Your task to perform on an android device: turn off javascript in the chrome app Image 0: 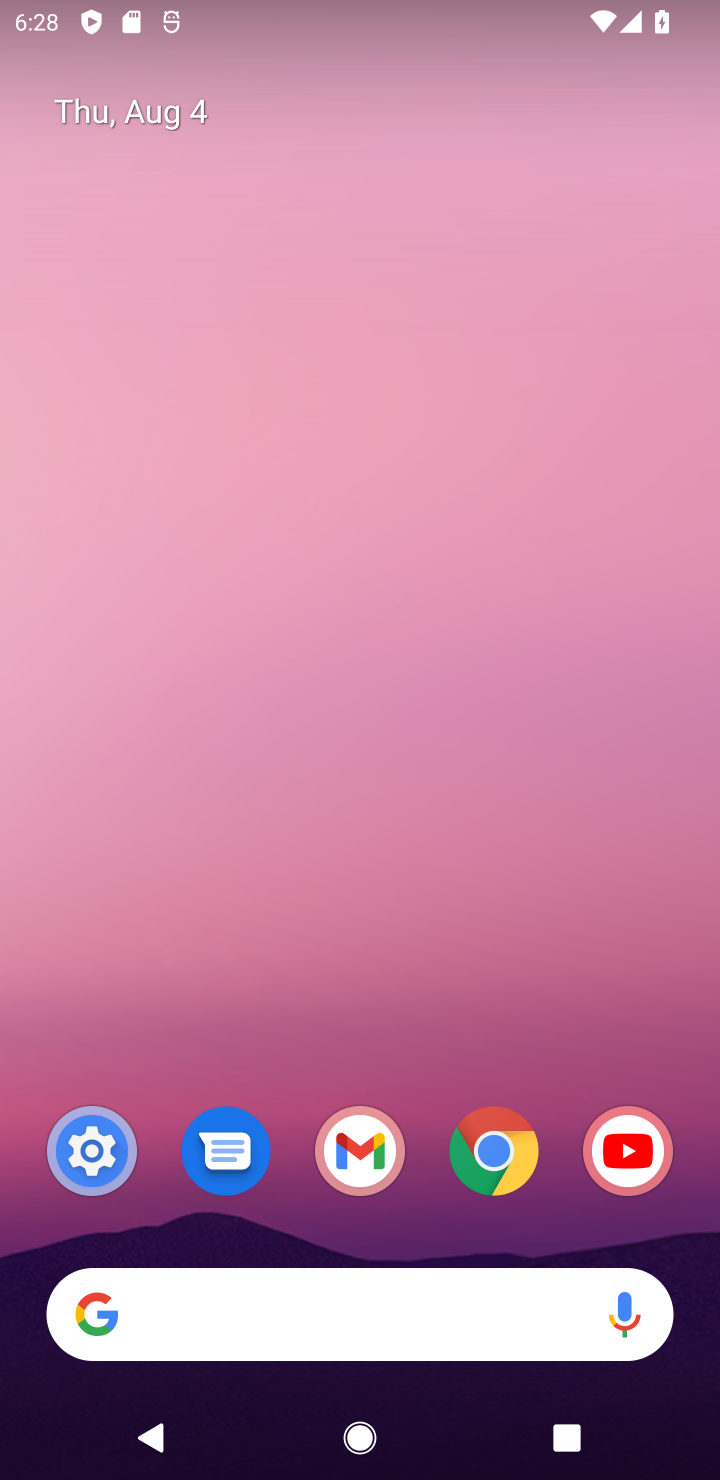
Step 0: click (467, 1163)
Your task to perform on an android device: turn off javascript in the chrome app Image 1: 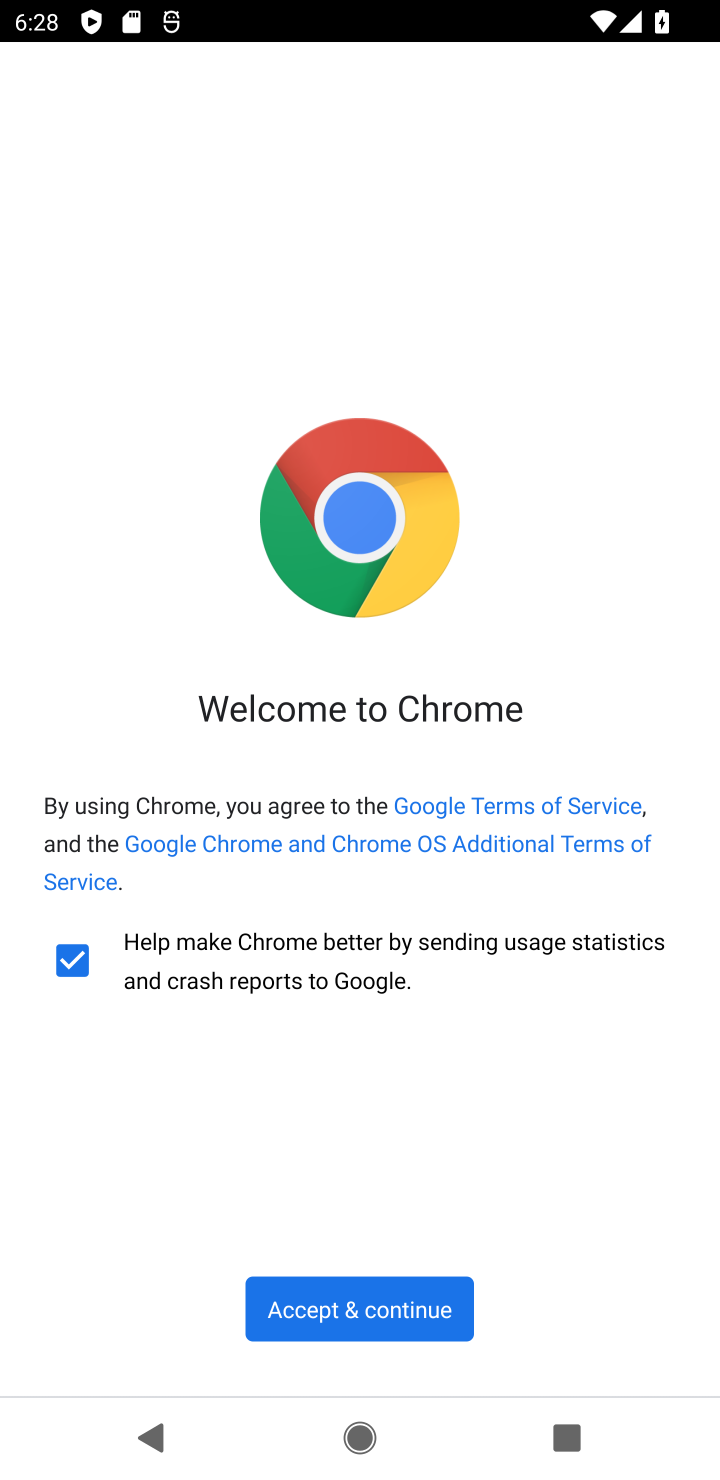
Step 1: click (431, 1293)
Your task to perform on an android device: turn off javascript in the chrome app Image 2: 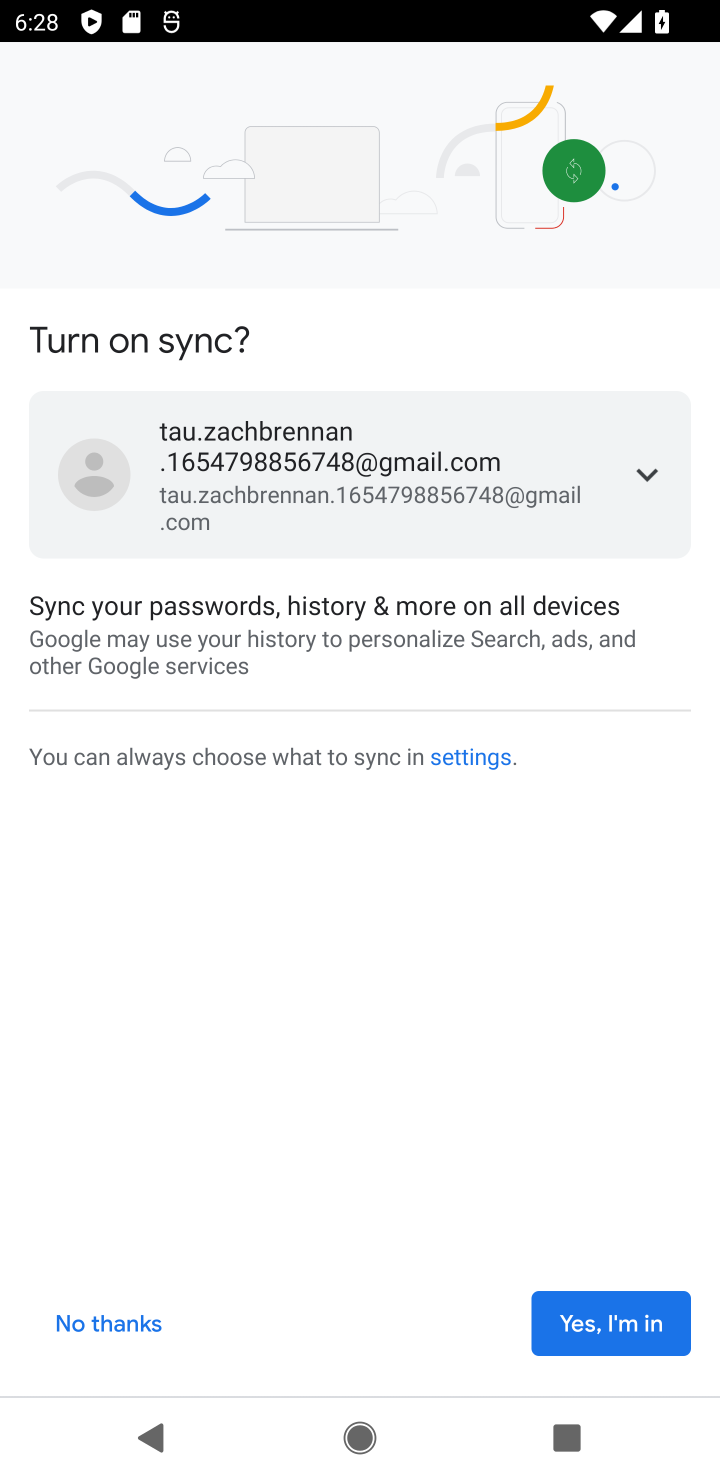
Step 2: click (601, 1328)
Your task to perform on an android device: turn off javascript in the chrome app Image 3: 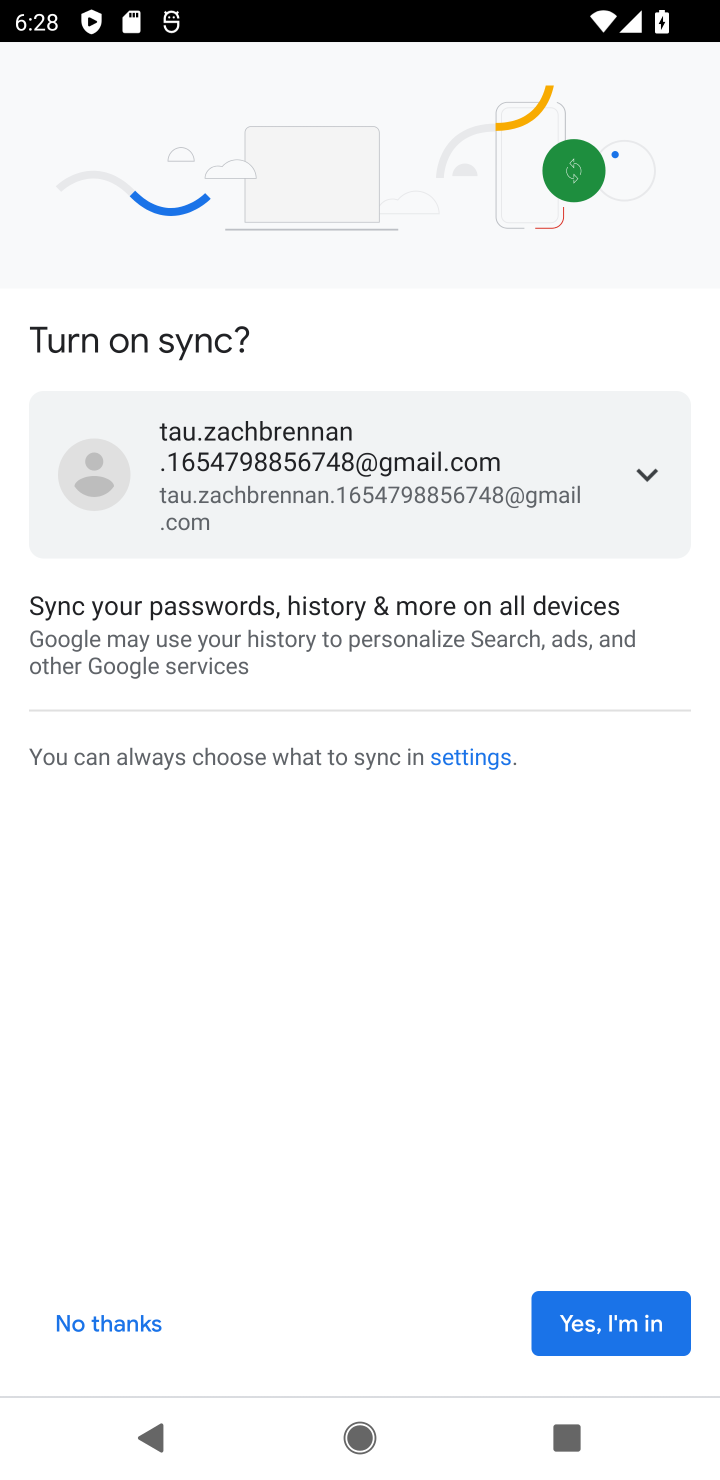
Step 3: click (587, 1316)
Your task to perform on an android device: turn off javascript in the chrome app Image 4: 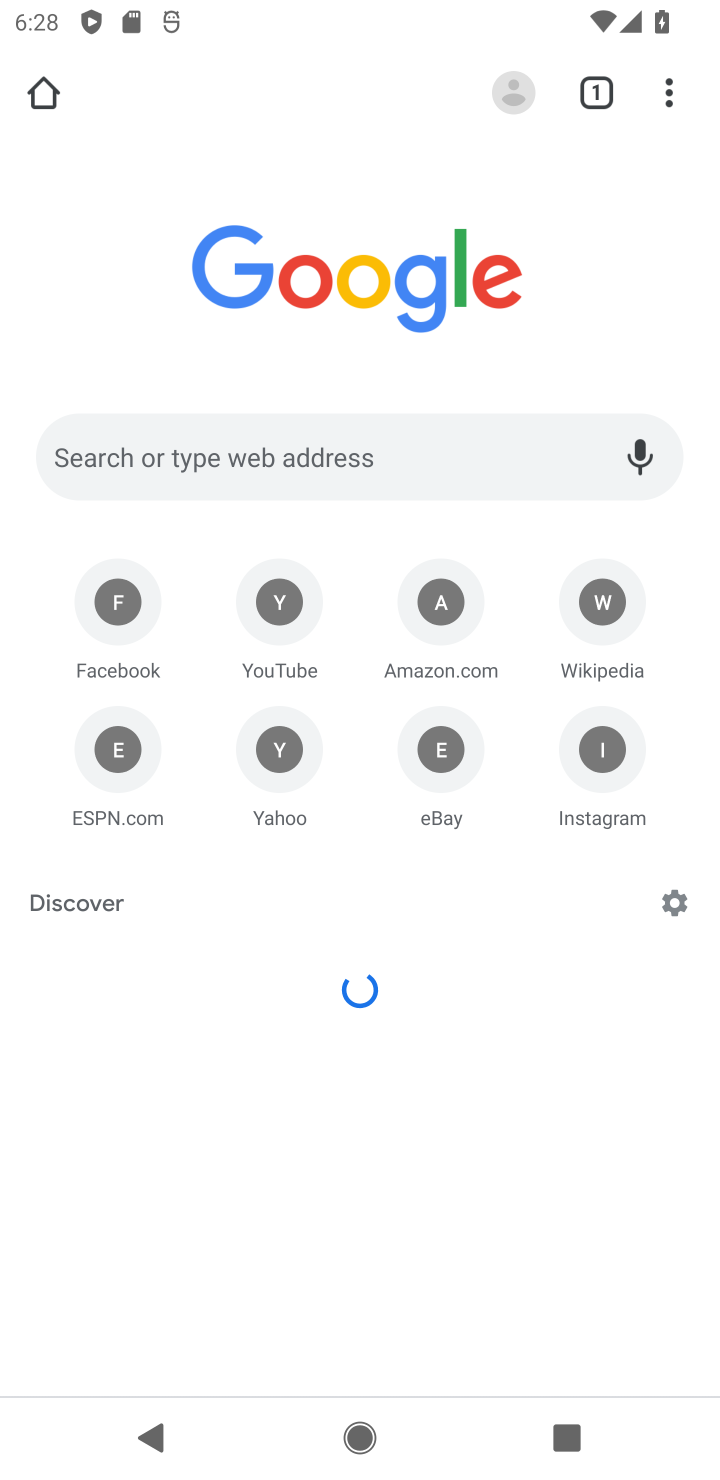
Step 4: click (667, 91)
Your task to perform on an android device: turn off javascript in the chrome app Image 5: 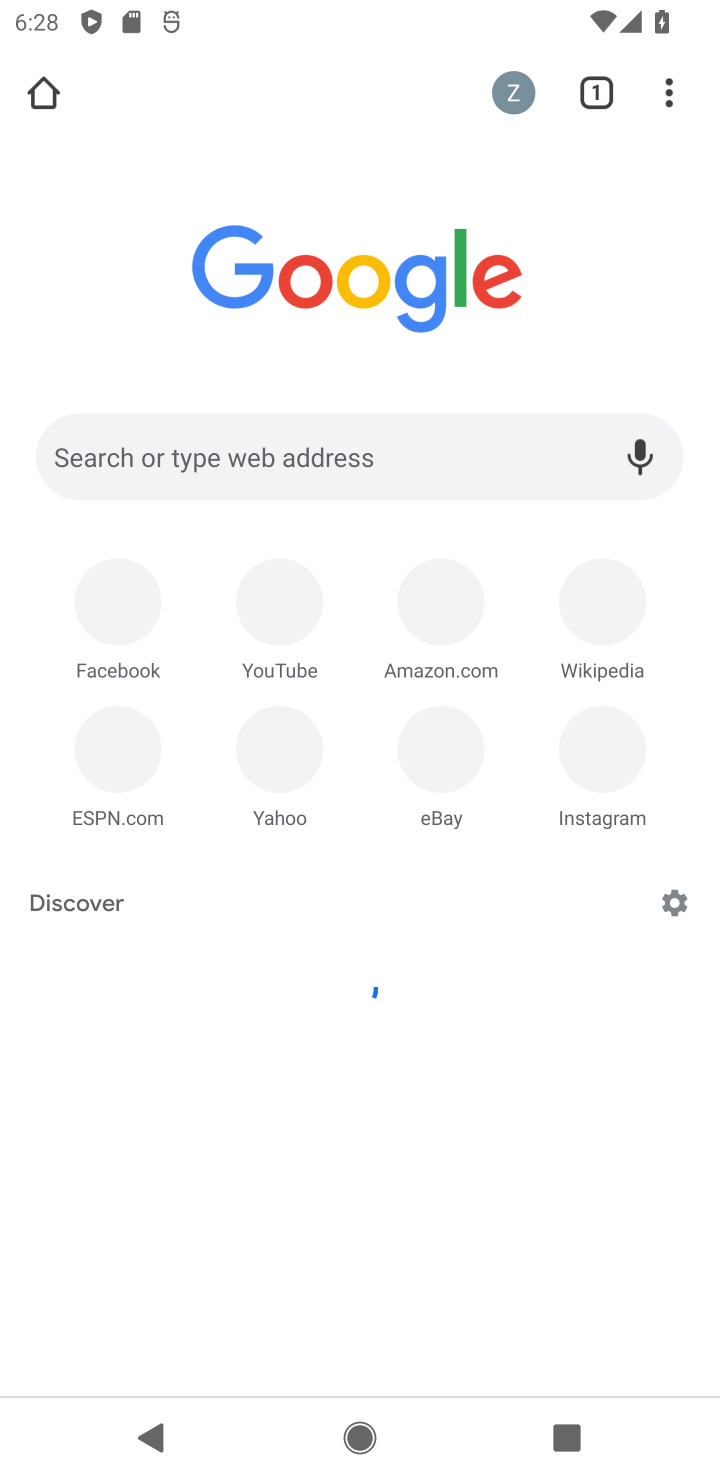
Step 5: click (674, 82)
Your task to perform on an android device: turn off javascript in the chrome app Image 6: 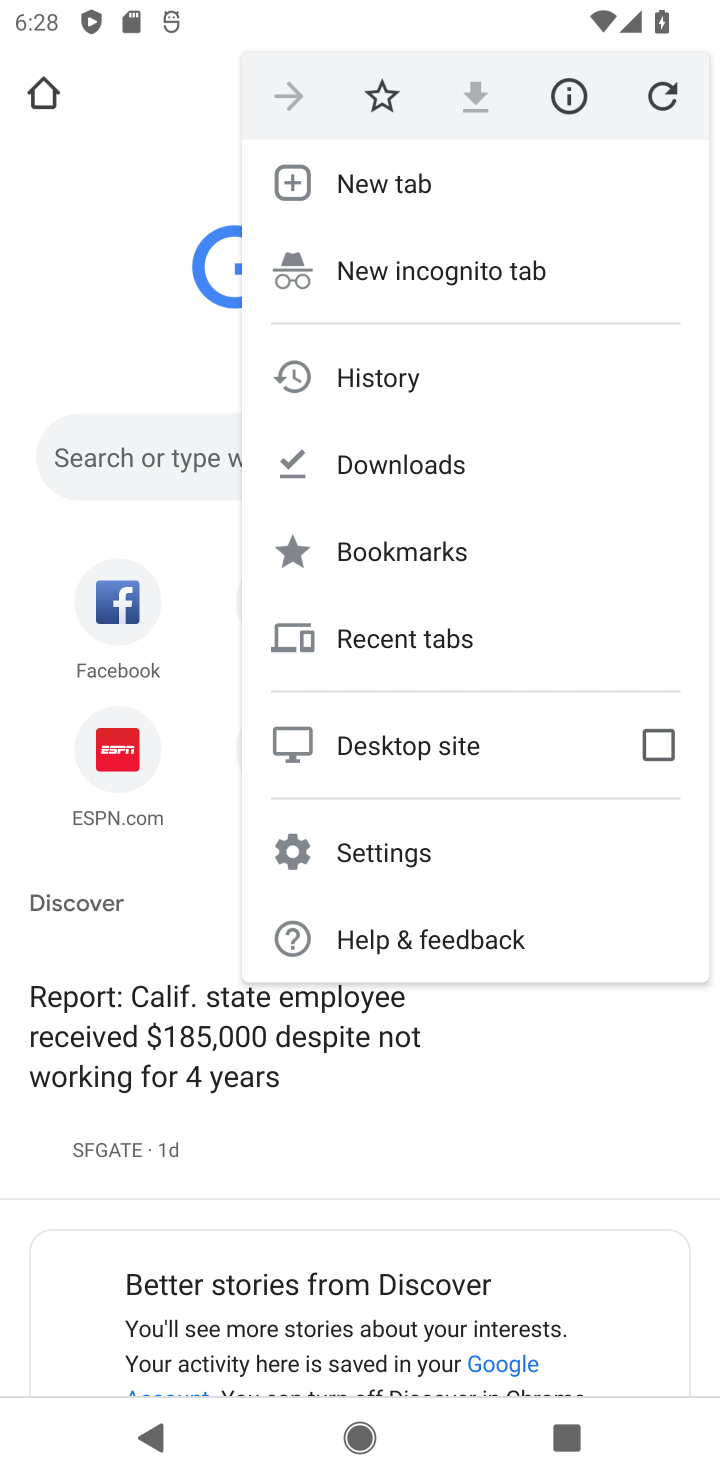
Step 6: click (429, 853)
Your task to perform on an android device: turn off javascript in the chrome app Image 7: 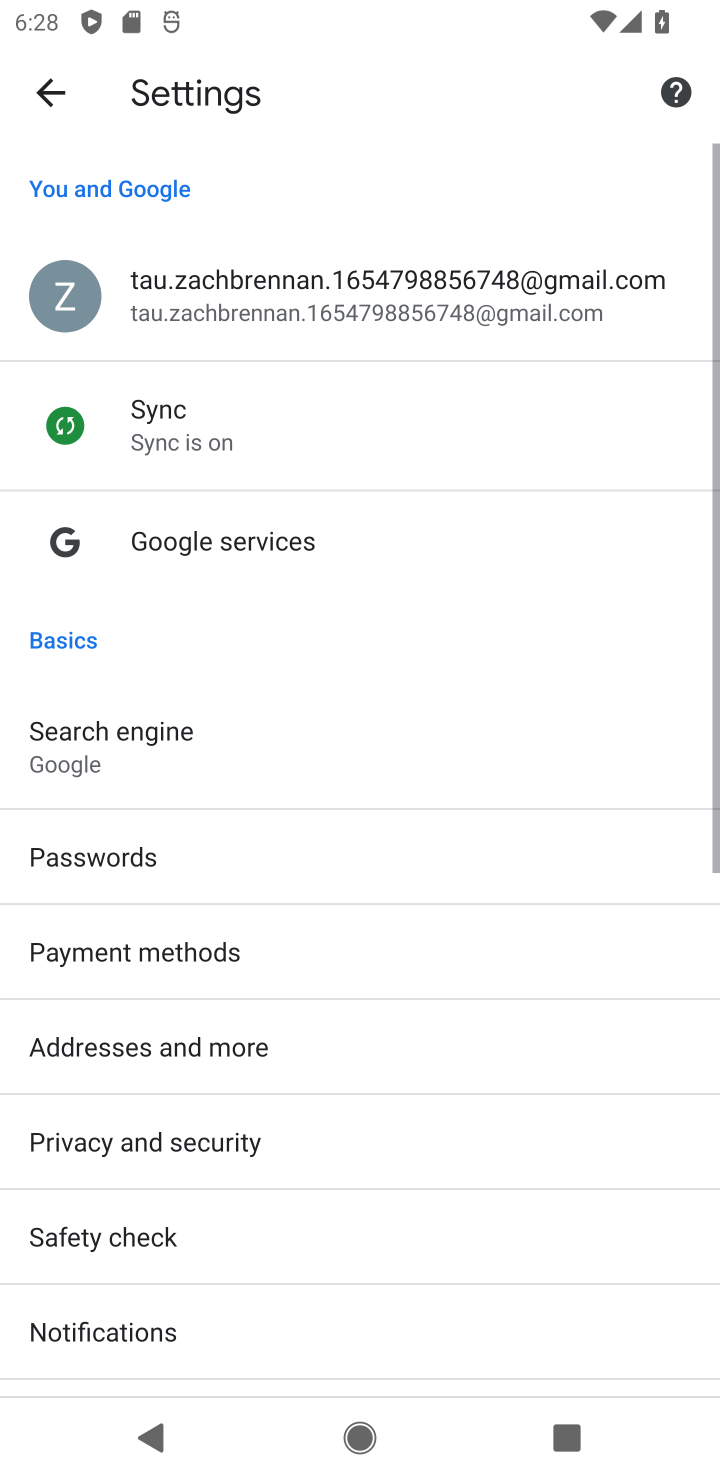
Step 7: drag from (168, 1243) to (166, 980)
Your task to perform on an android device: turn off javascript in the chrome app Image 8: 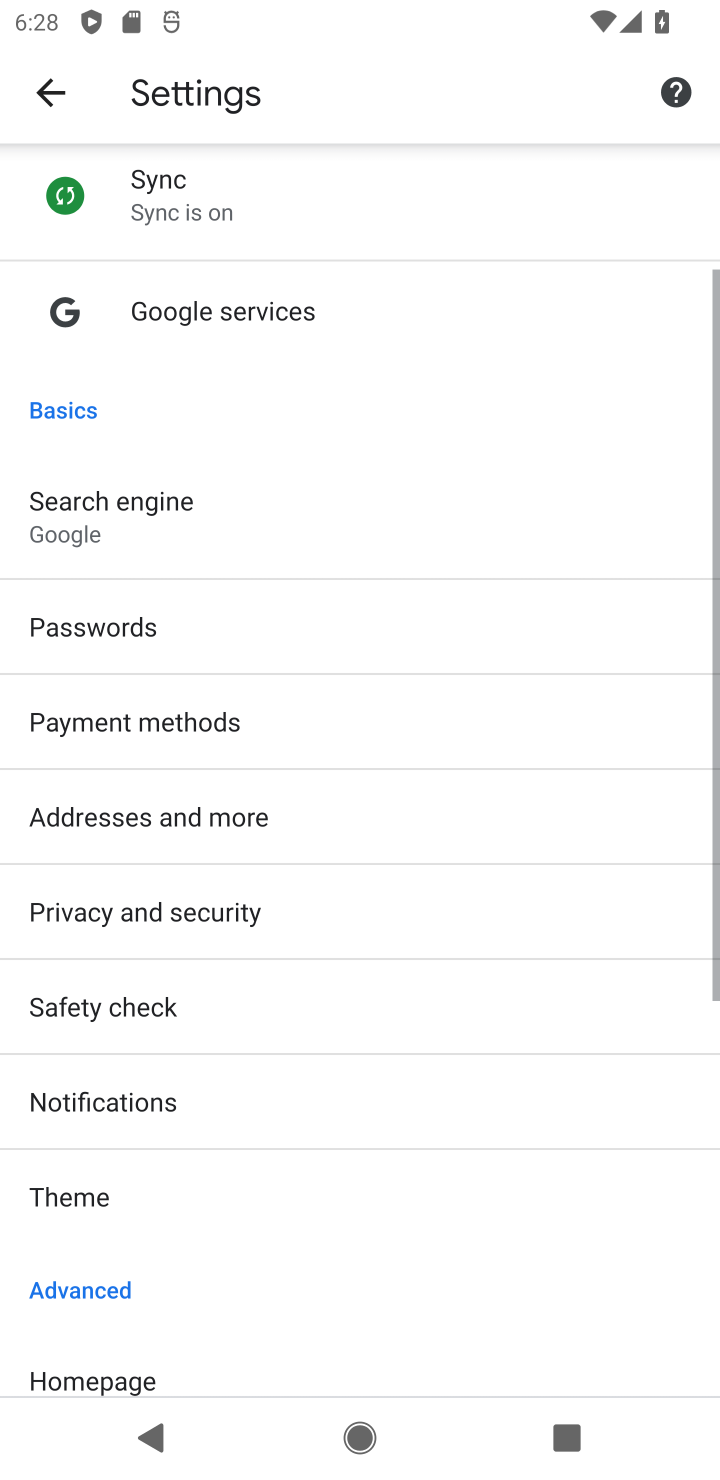
Step 8: drag from (162, 1164) to (167, 548)
Your task to perform on an android device: turn off javascript in the chrome app Image 9: 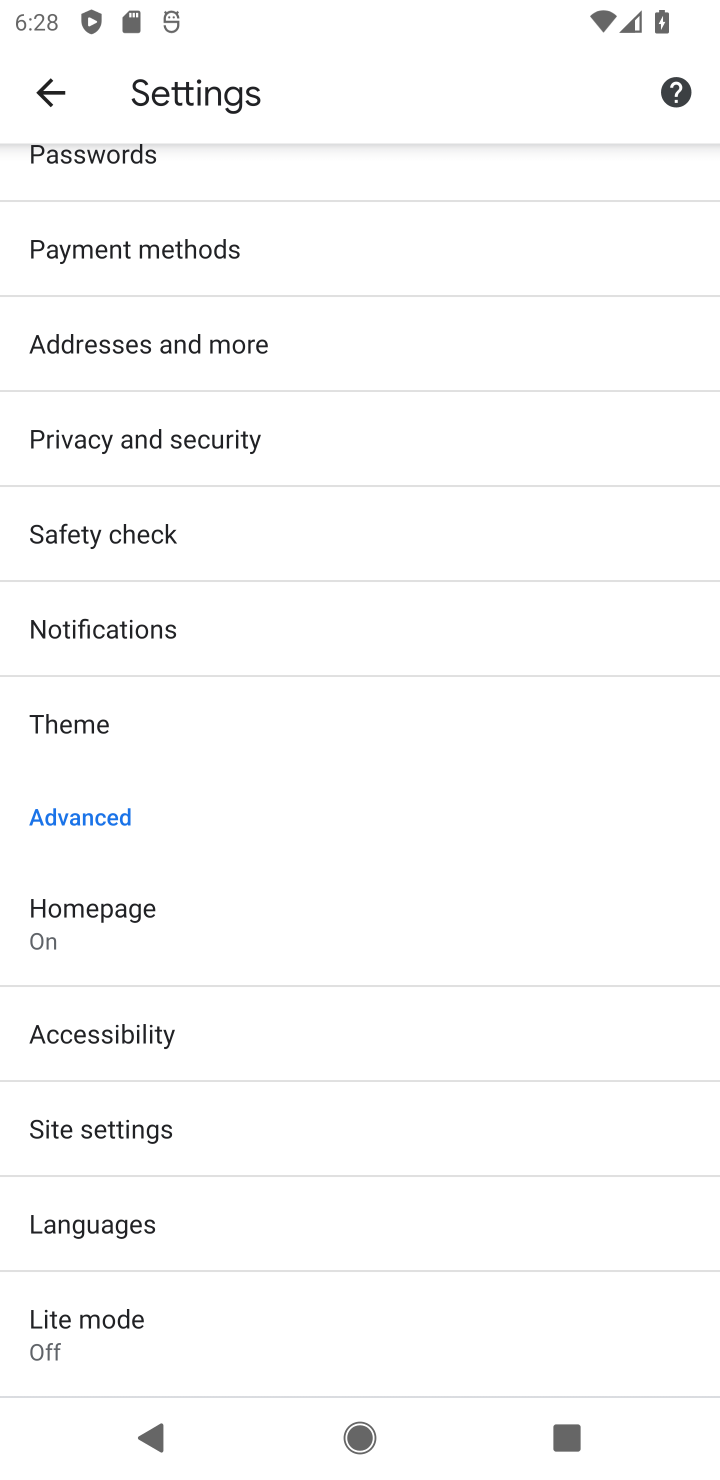
Step 9: click (156, 1129)
Your task to perform on an android device: turn off javascript in the chrome app Image 10: 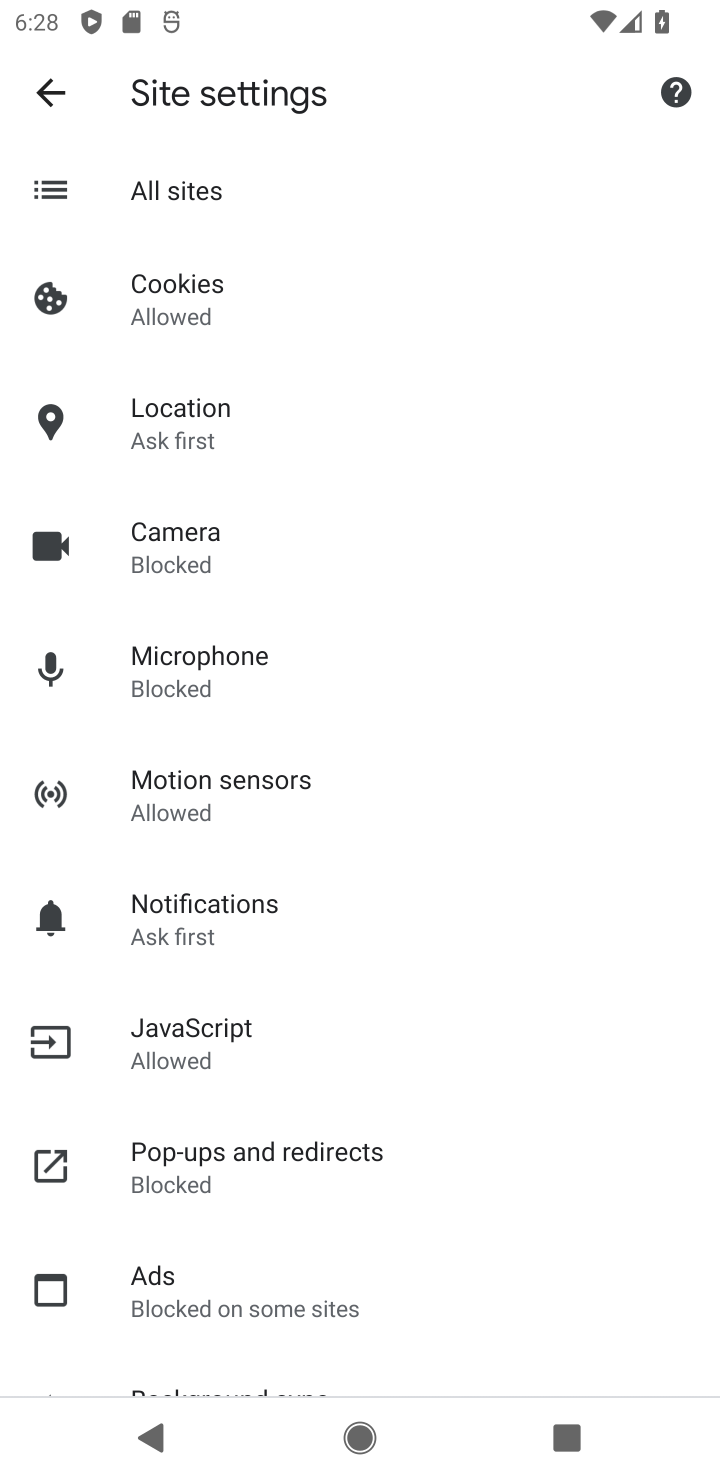
Step 10: click (265, 1037)
Your task to perform on an android device: turn off javascript in the chrome app Image 11: 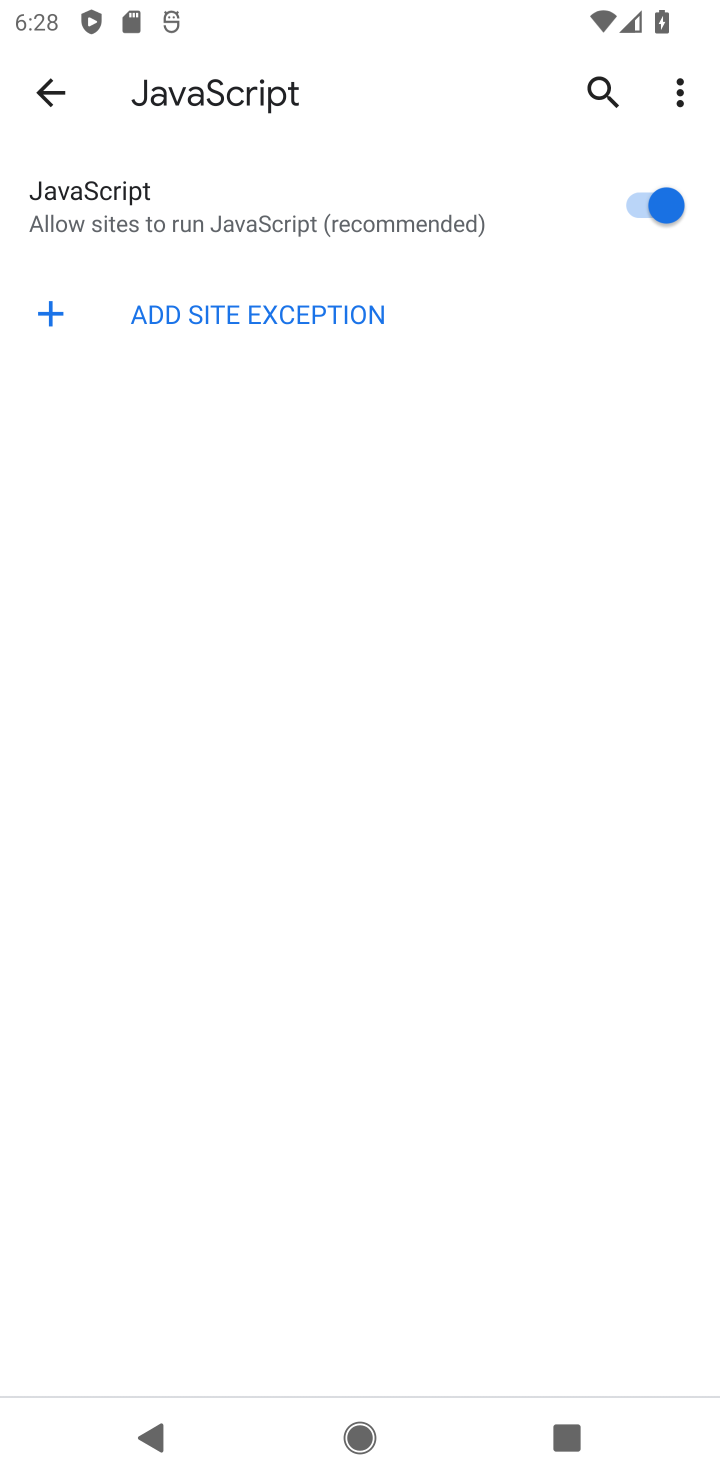
Step 11: click (608, 211)
Your task to perform on an android device: turn off javascript in the chrome app Image 12: 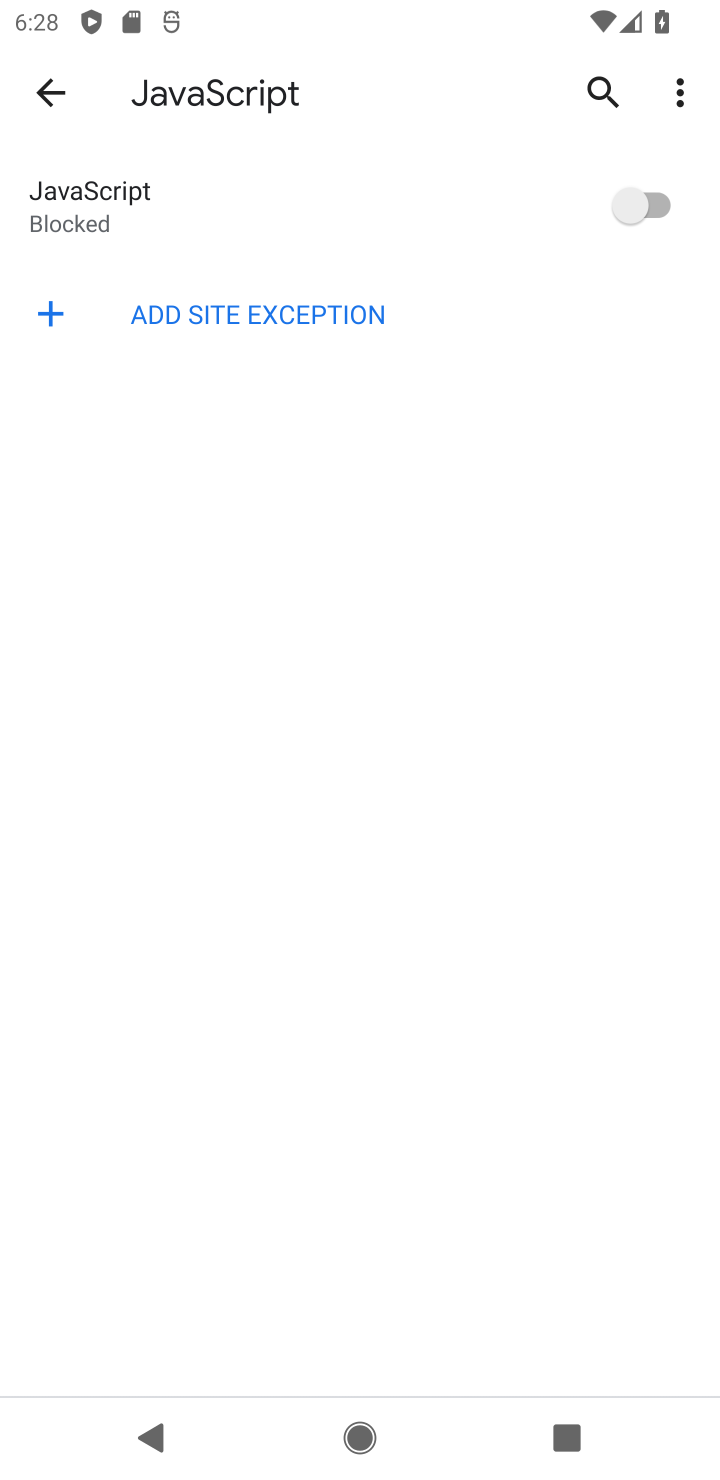
Step 12: task complete